Your task to perform on an android device: turn vacation reply on in the gmail app Image 0: 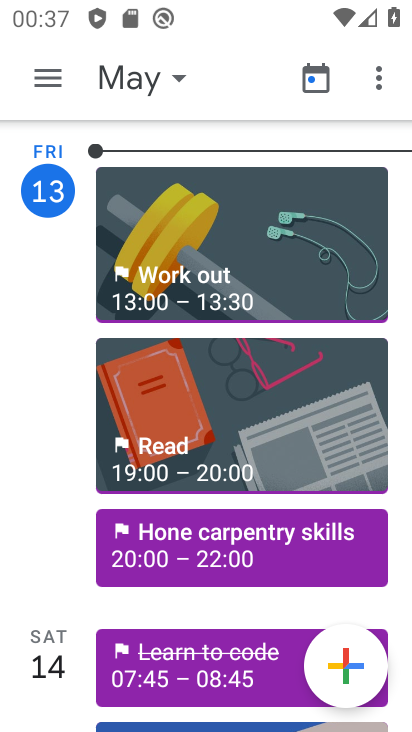
Step 0: press home button
Your task to perform on an android device: turn vacation reply on in the gmail app Image 1: 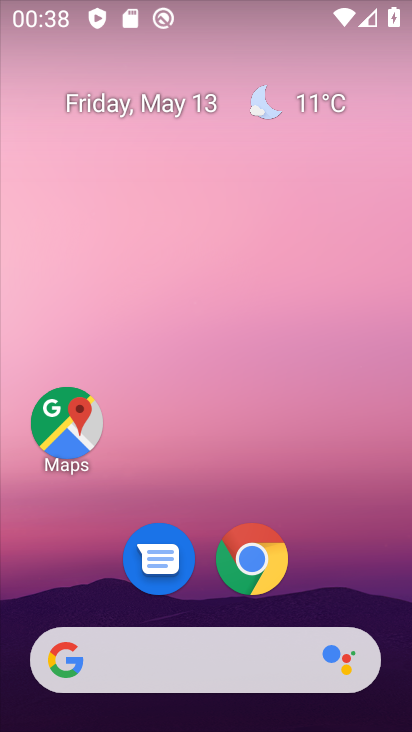
Step 1: drag from (353, 511) to (308, 78)
Your task to perform on an android device: turn vacation reply on in the gmail app Image 2: 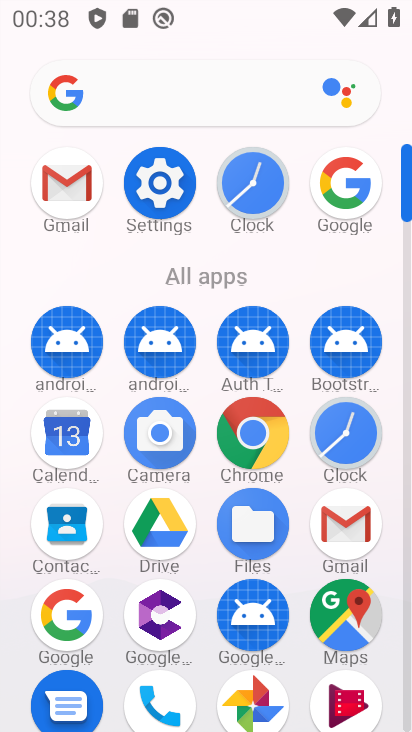
Step 2: click (68, 178)
Your task to perform on an android device: turn vacation reply on in the gmail app Image 3: 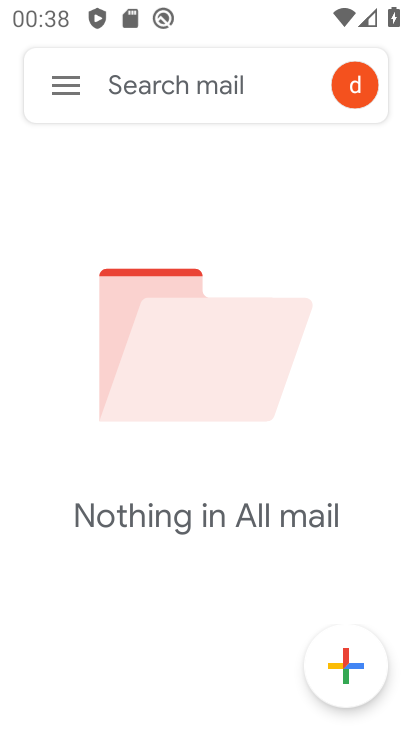
Step 3: click (54, 94)
Your task to perform on an android device: turn vacation reply on in the gmail app Image 4: 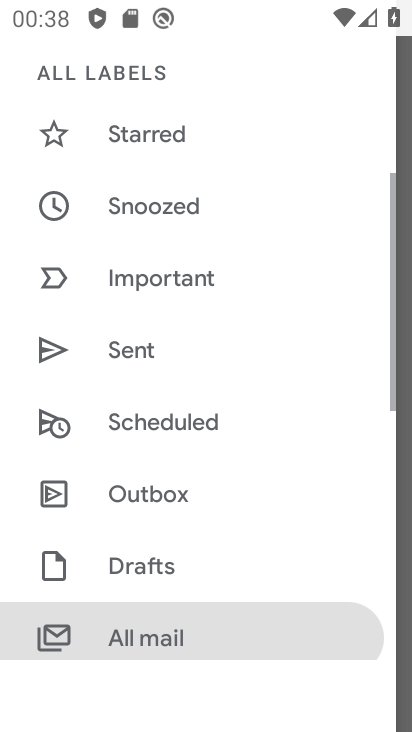
Step 4: drag from (211, 549) to (239, 46)
Your task to perform on an android device: turn vacation reply on in the gmail app Image 5: 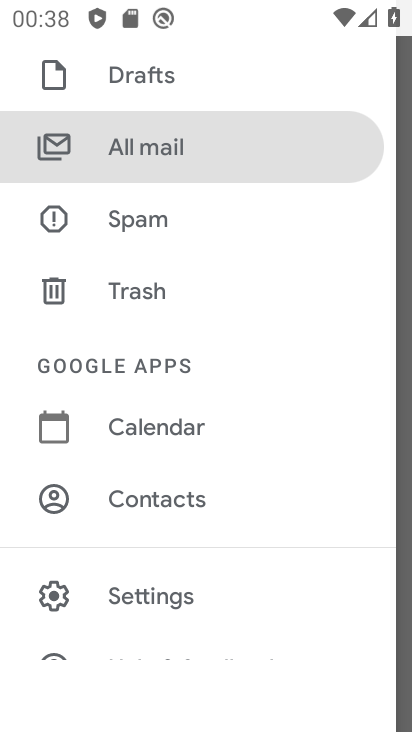
Step 5: click (200, 592)
Your task to perform on an android device: turn vacation reply on in the gmail app Image 6: 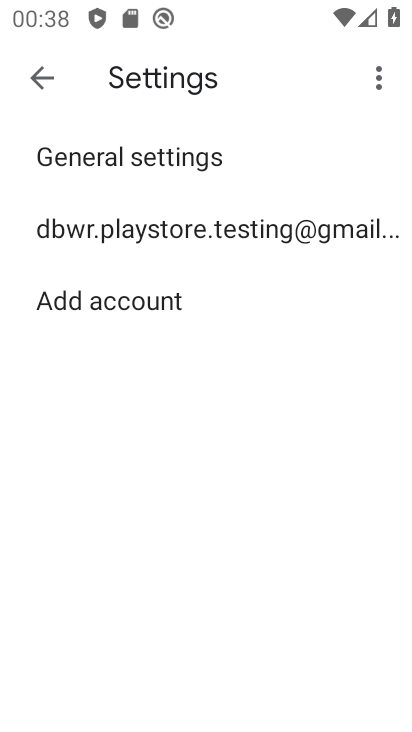
Step 6: click (234, 236)
Your task to perform on an android device: turn vacation reply on in the gmail app Image 7: 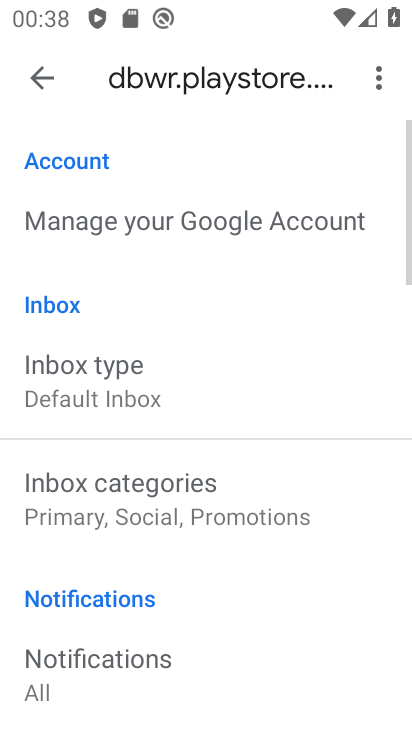
Step 7: drag from (253, 647) to (236, 177)
Your task to perform on an android device: turn vacation reply on in the gmail app Image 8: 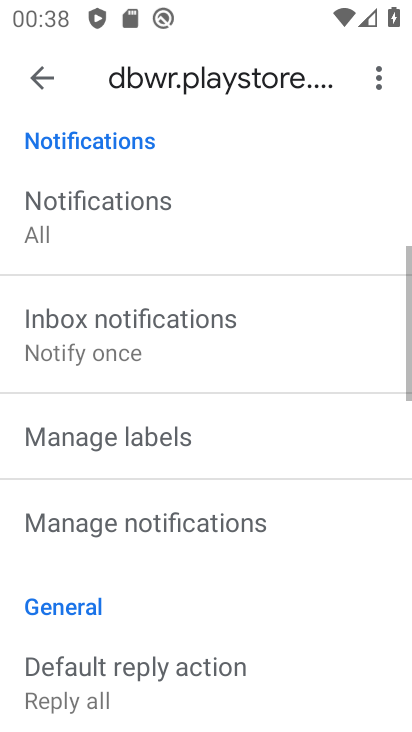
Step 8: drag from (277, 651) to (255, 279)
Your task to perform on an android device: turn vacation reply on in the gmail app Image 9: 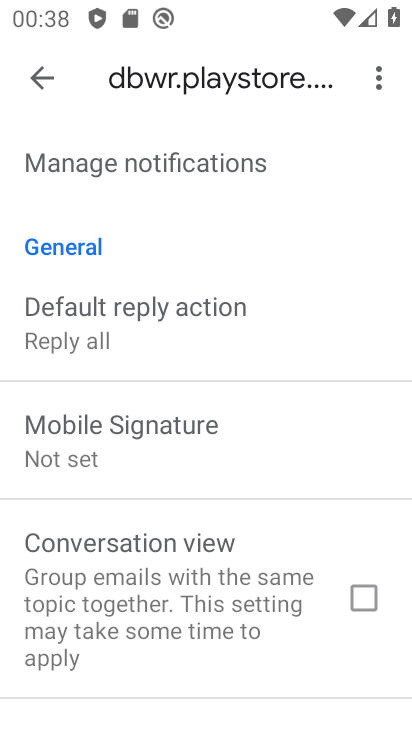
Step 9: drag from (236, 540) to (232, 179)
Your task to perform on an android device: turn vacation reply on in the gmail app Image 10: 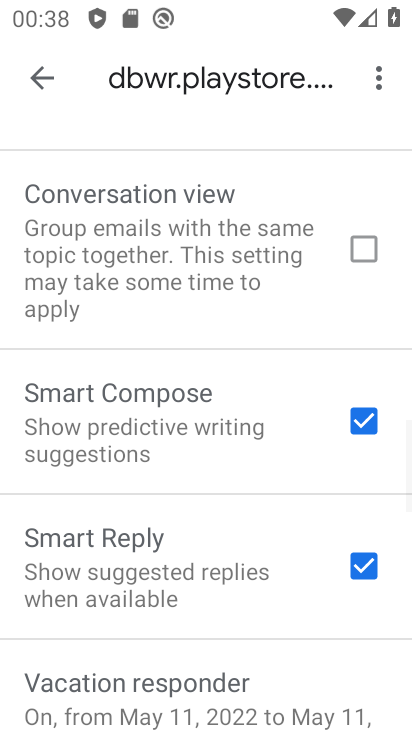
Step 10: drag from (241, 639) to (223, 390)
Your task to perform on an android device: turn vacation reply on in the gmail app Image 11: 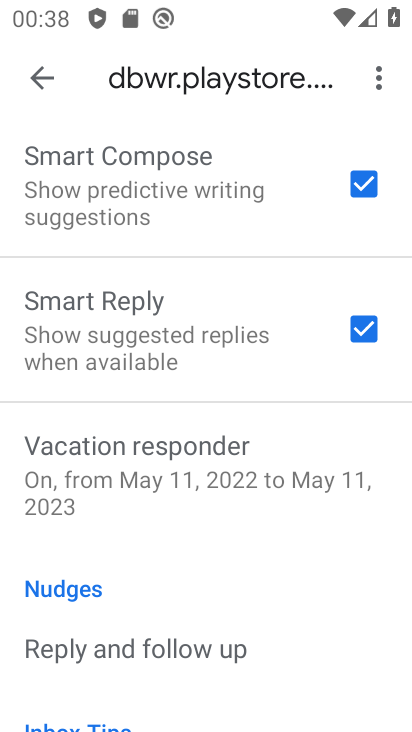
Step 11: click (219, 453)
Your task to perform on an android device: turn vacation reply on in the gmail app Image 12: 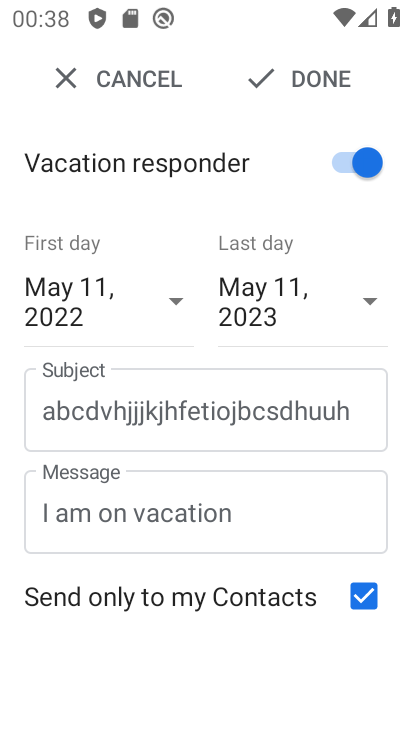
Step 12: task complete